Your task to perform on an android device: change the upload size in google photos Image 0: 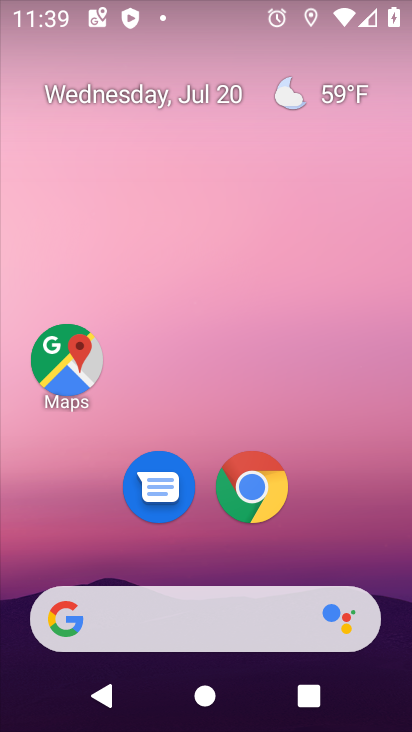
Step 0: drag from (332, 541) to (366, 115)
Your task to perform on an android device: change the upload size in google photos Image 1: 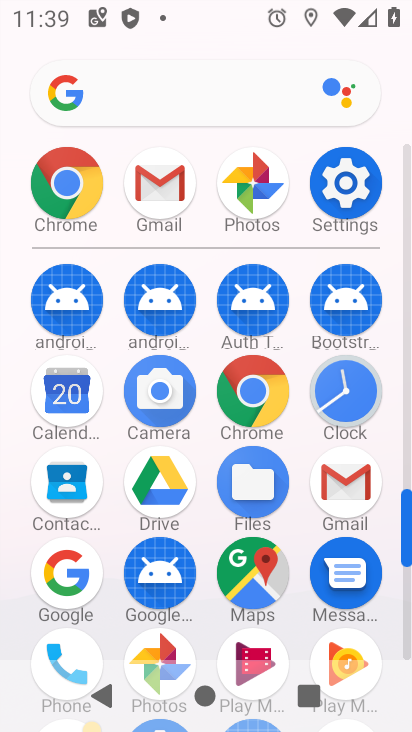
Step 1: click (264, 188)
Your task to perform on an android device: change the upload size in google photos Image 2: 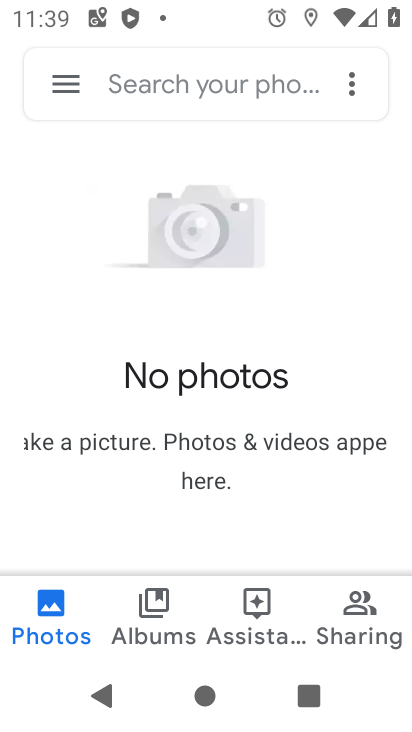
Step 2: click (77, 89)
Your task to perform on an android device: change the upload size in google photos Image 3: 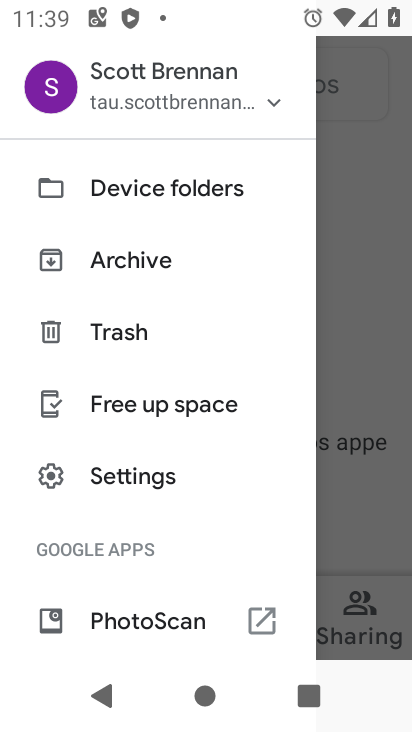
Step 3: click (192, 482)
Your task to perform on an android device: change the upload size in google photos Image 4: 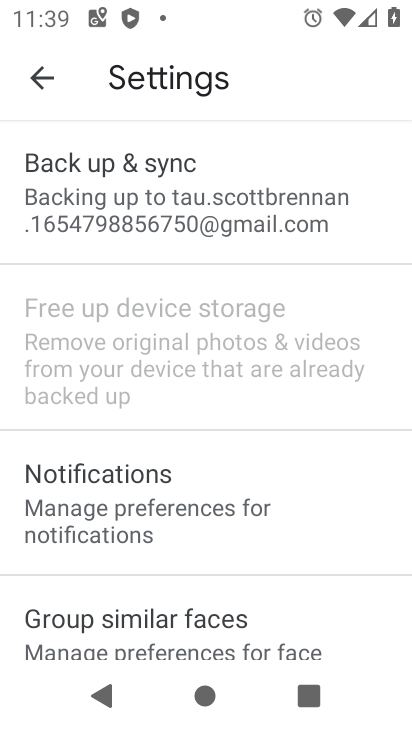
Step 4: click (214, 188)
Your task to perform on an android device: change the upload size in google photos Image 5: 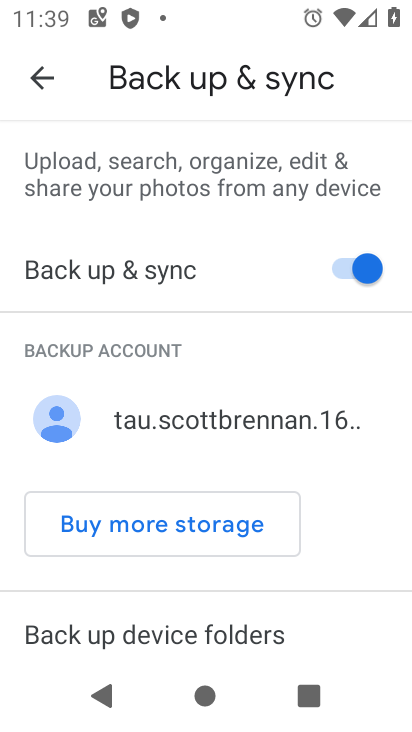
Step 5: drag from (359, 533) to (320, 722)
Your task to perform on an android device: change the upload size in google photos Image 6: 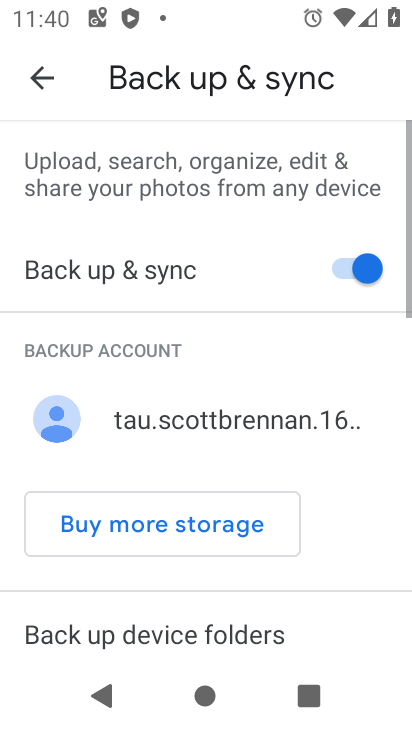
Step 6: drag from (348, 576) to (375, 459)
Your task to perform on an android device: change the upload size in google photos Image 7: 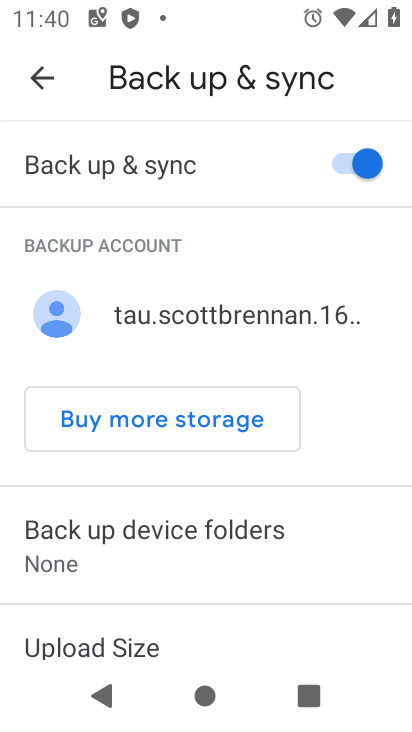
Step 7: drag from (344, 572) to (351, 412)
Your task to perform on an android device: change the upload size in google photos Image 8: 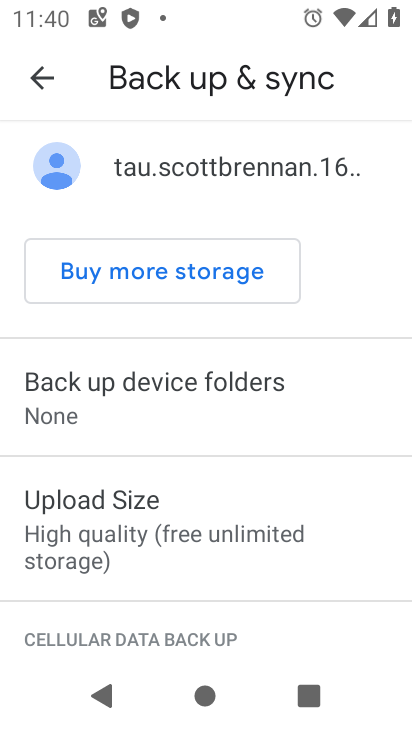
Step 8: drag from (324, 581) to (338, 412)
Your task to perform on an android device: change the upload size in google photos Image 9: 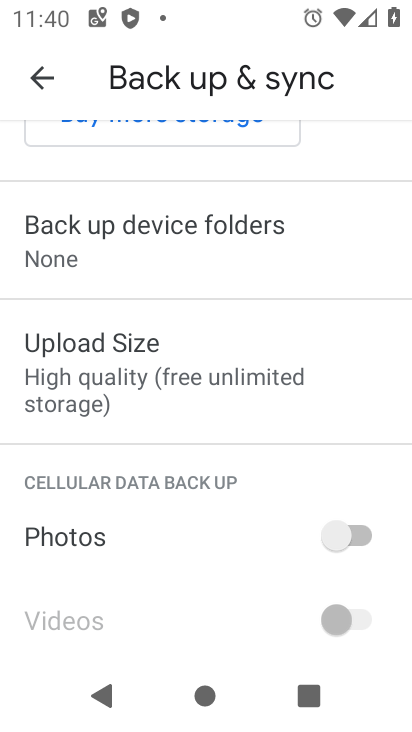
Step 9: click (209, 382)
Your task to perform on an android device: change the upload size in google photos Image 10: 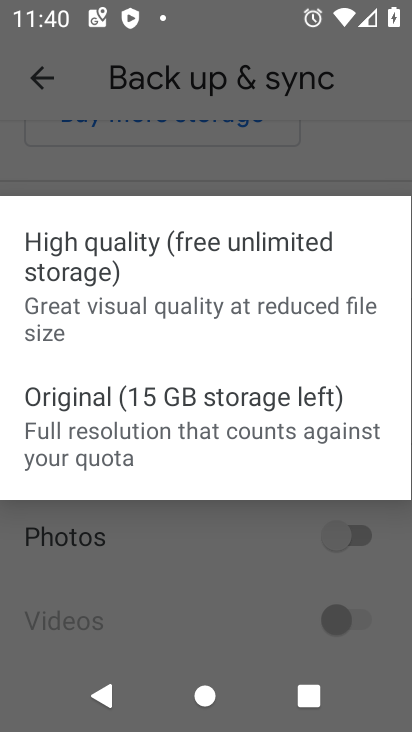
Step 10: click (202, 413)
Your task to perform on an android device: change the upload size in google photos Image 11: 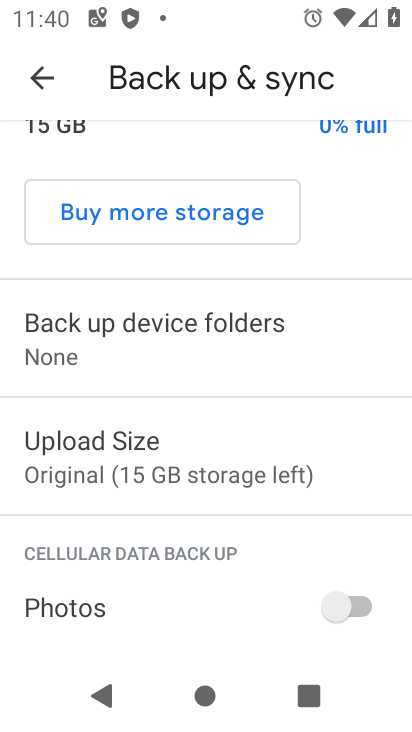
Step 11: task complete